Your task to perform on an android device: Search for amazon basics triple a on walmart.com, select the first entry, add it to the cart, then select checkout. Image 0: 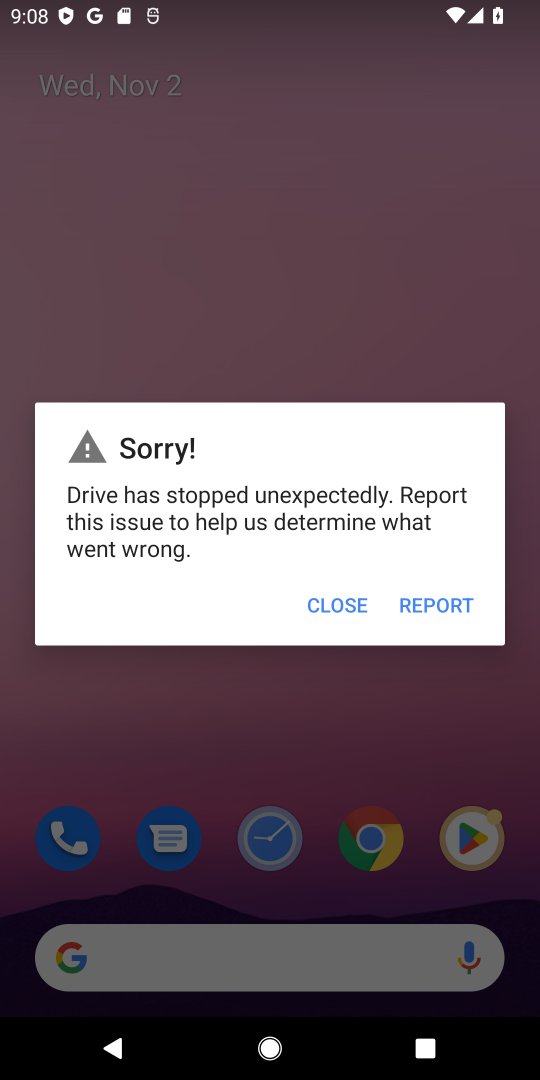
Step 0: click (336, 607)
Your task to perform on an android device: Search for amazon basics triple a on walmart.com, select the first entry, add it to the cart, then select checkout. Image 1: 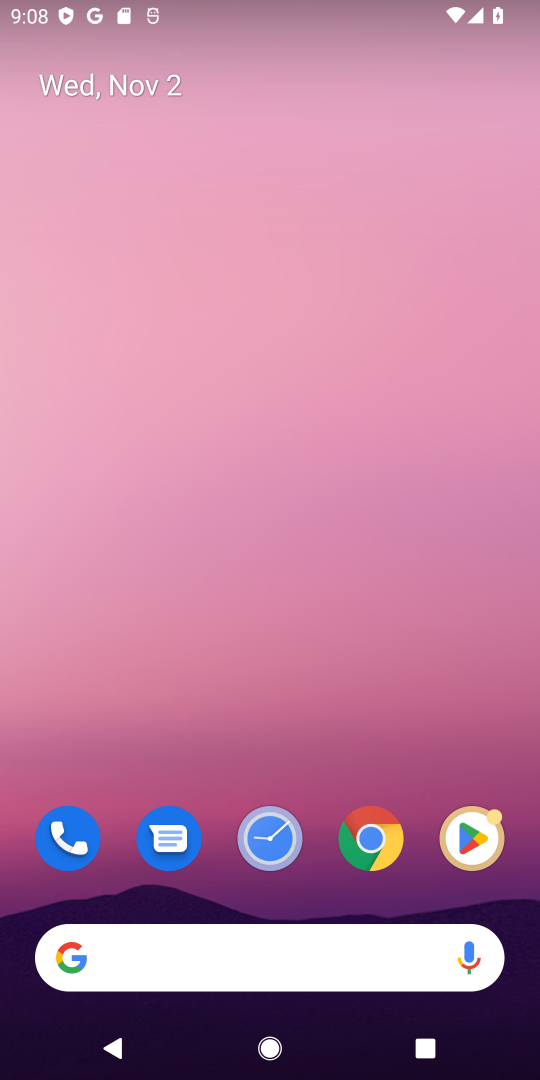
Step 1: click (368, 837)
Your task to perform on an android device: Search for amazon basics triple a on walmart.com, select the first entry, add it to the cart, then select checkout. Image 2: 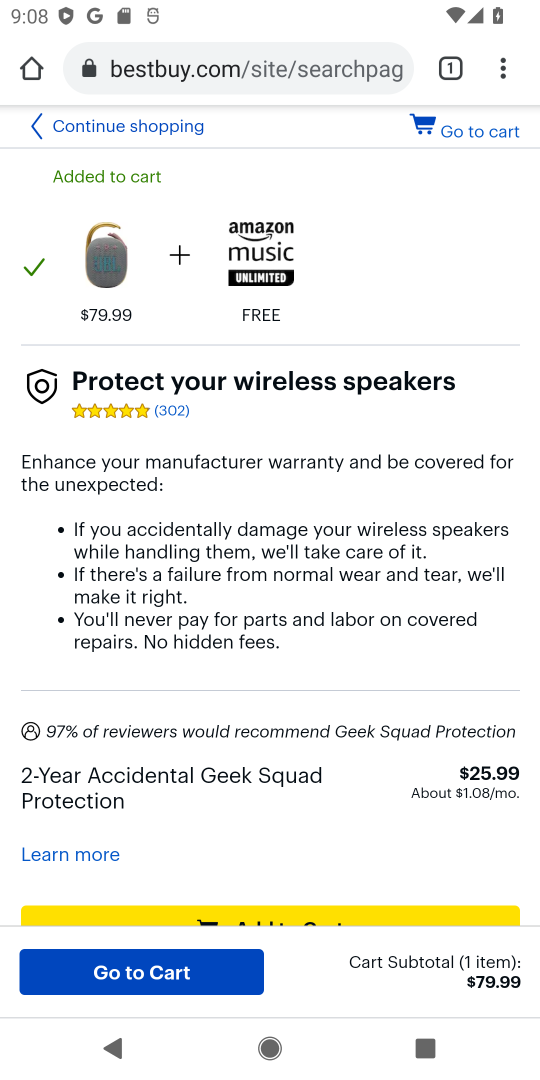
Step 2: click (452, 62)
Your task to perform on an android device: Search for amazon basics triple a on walmart.com, select the first entry, add it to the cart, then select checkout. Image 3: 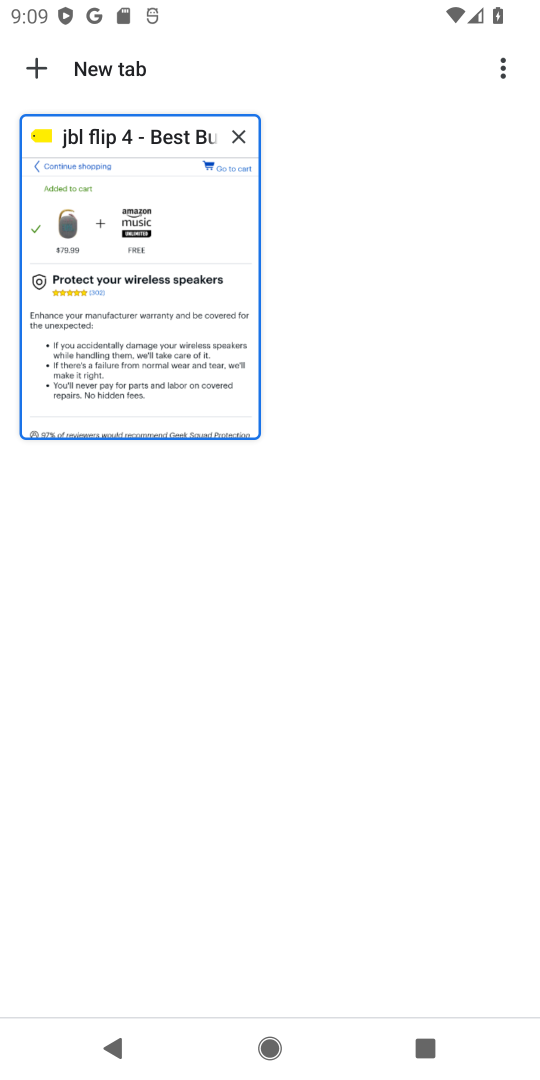
Step 3: click (27, 61)
Your task to perform on an android device: Search for amazon basics triple a on walmart.com, select the first entry, add it to the cart, then select checkout. Image 4: 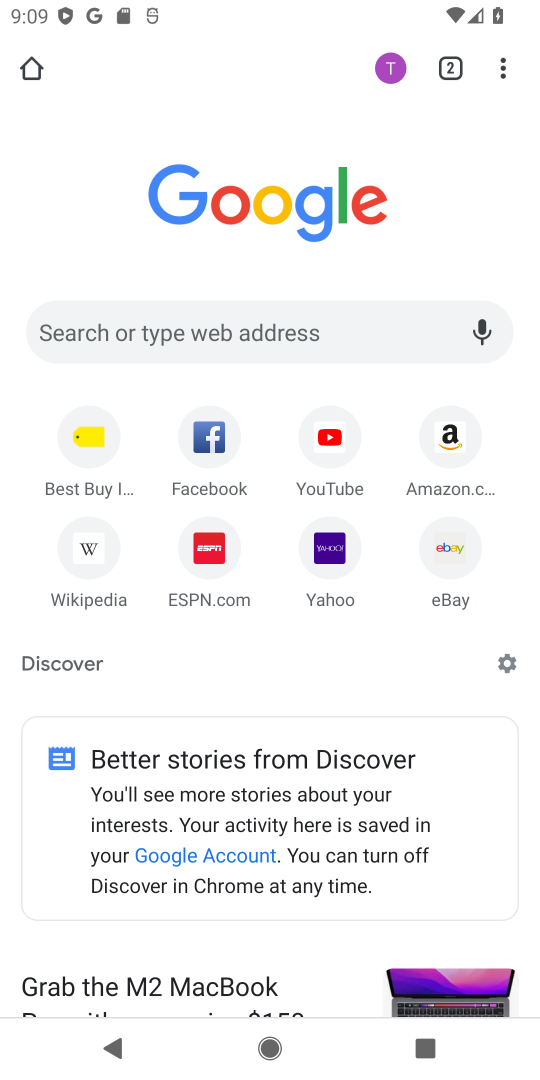
Step 4: click (334, 323)
Your task to perform on an android device: Search for amazon basics triple a on walmart.com, select the first entry, add it to the cart, then select checkout. Image 5: 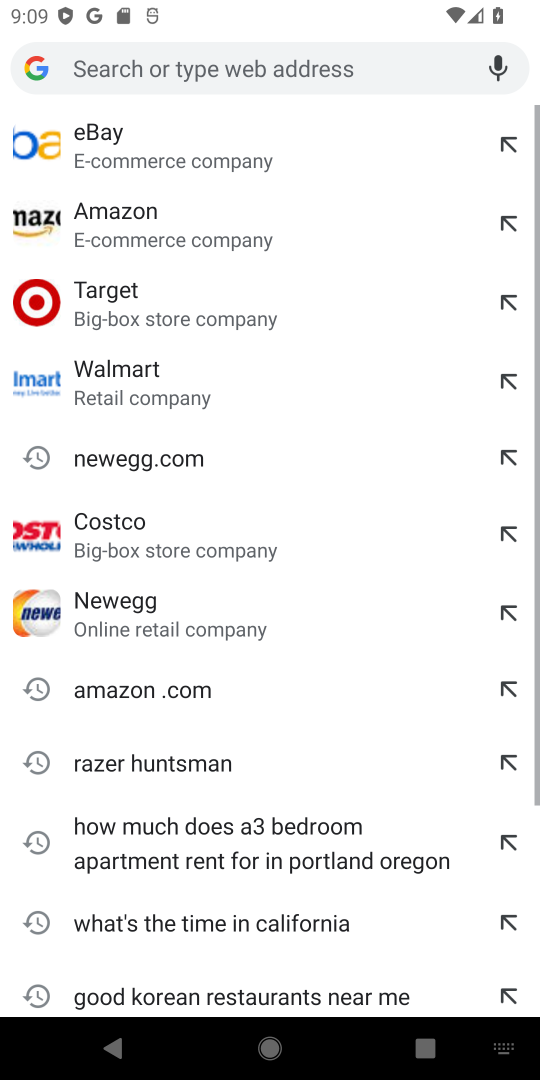
Step 5: press enter
Your task to perform on an android device: Search for amazon basics triple a on walmart.com, select the first entry, add it to the cart, then select checkout. Image 6: 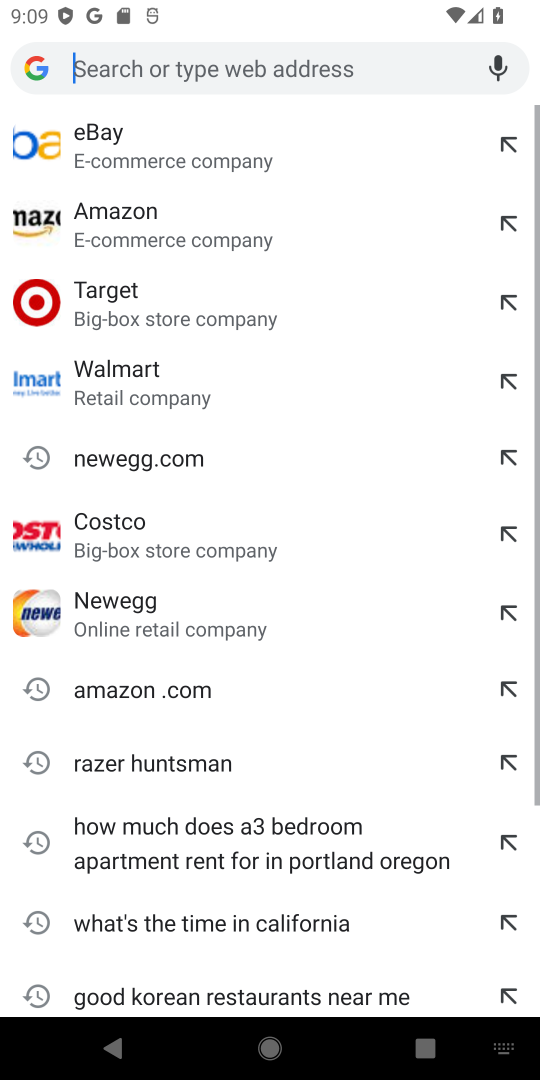
Step 6: type "amazon"
Your task to perform on an android device: Search for amazon basics triple a on walmart.com, select the first entry, add it to the cart, then select checkout. Image 7: 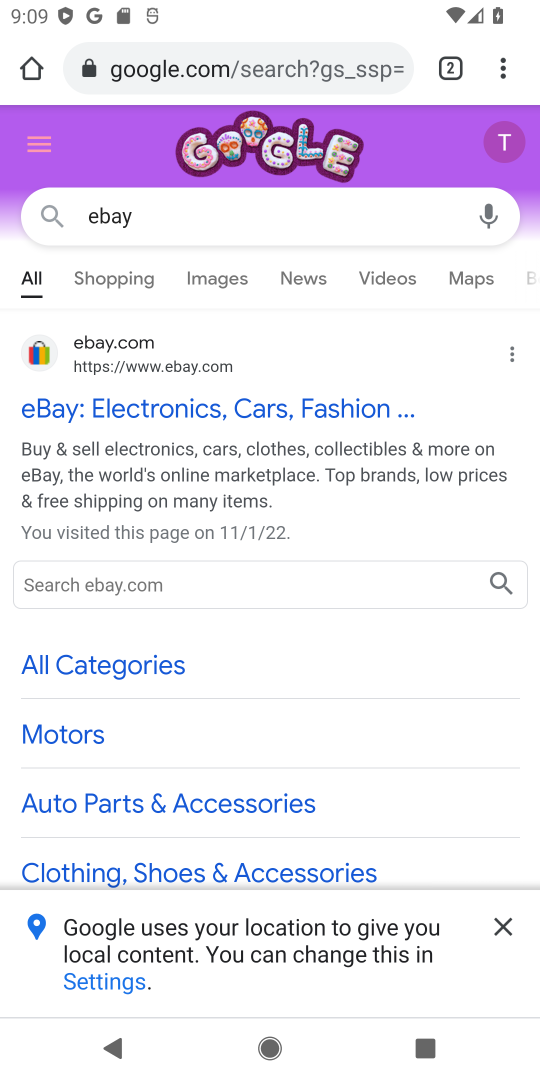
Step 7: click (228, 218)
Your task to perform on an android device: Search for amazon basics triple a on walmart.com, select the first entry, add it to the cart, then select checkout. Image 8: 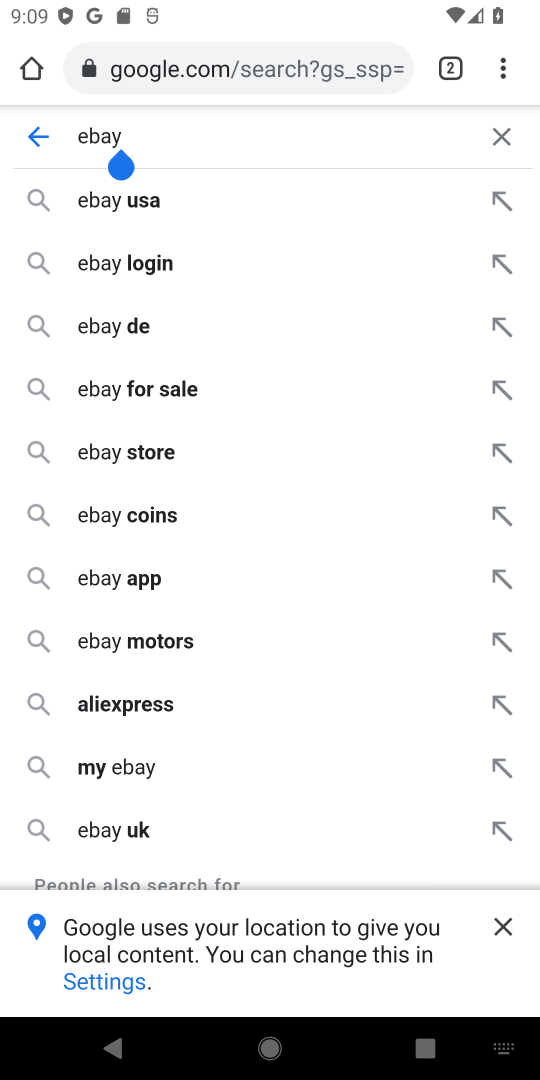
Step 8: click (122, 216)
Your task to perform on an android device: Search for amazon basics triple a on walmart.com, select the first entry, add it to the cart, then select checkout. Image 9: 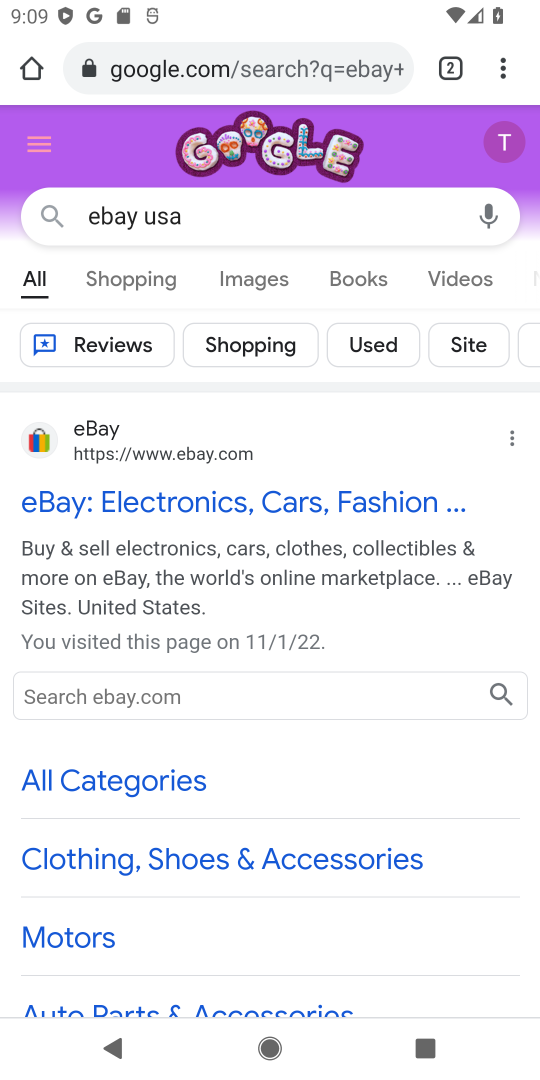
Step 9: click (348, 211)
Your task to perform on an android device: Search for amazon basics triple a on walmart.com, select the first entry, add it to the cart, then select checkout. Image 10: 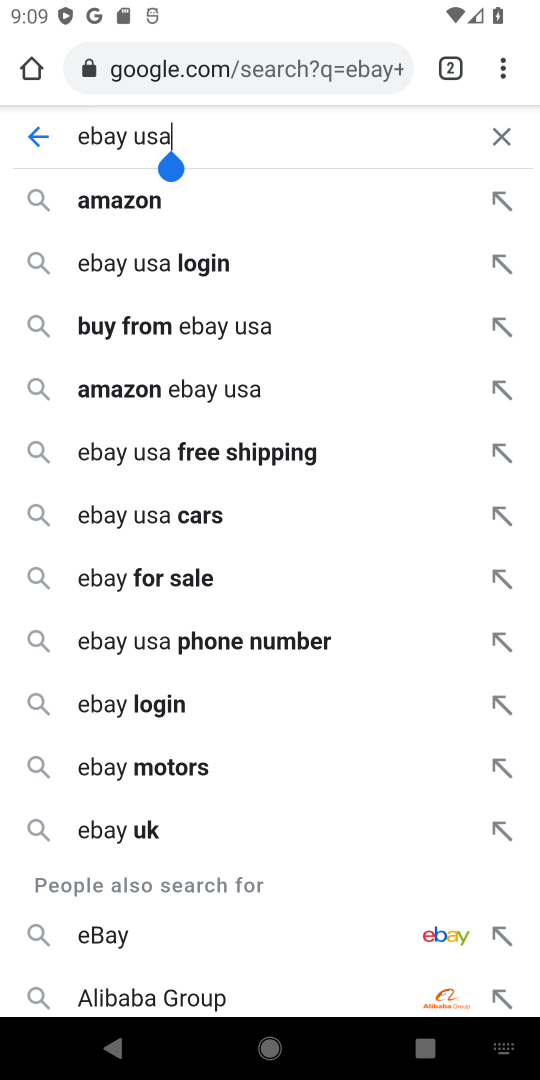
Step 10: click (501, 134)
Your task to perform on an android device: Search for amazon basics triple a on walmart.com, select the first entry, add it to the cart, then select checkout. Image 11: 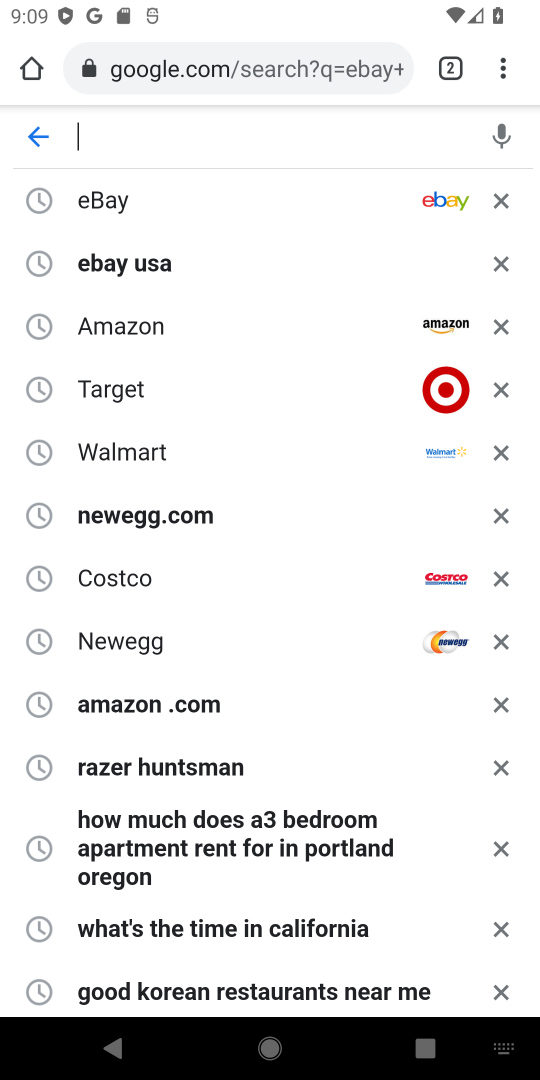
Step 11: type "wal"
Your task to perform on an android device: Search for amazon basics triple a on walmart.com, select the first entry, add it to the cart, then select checkout. Image 12: 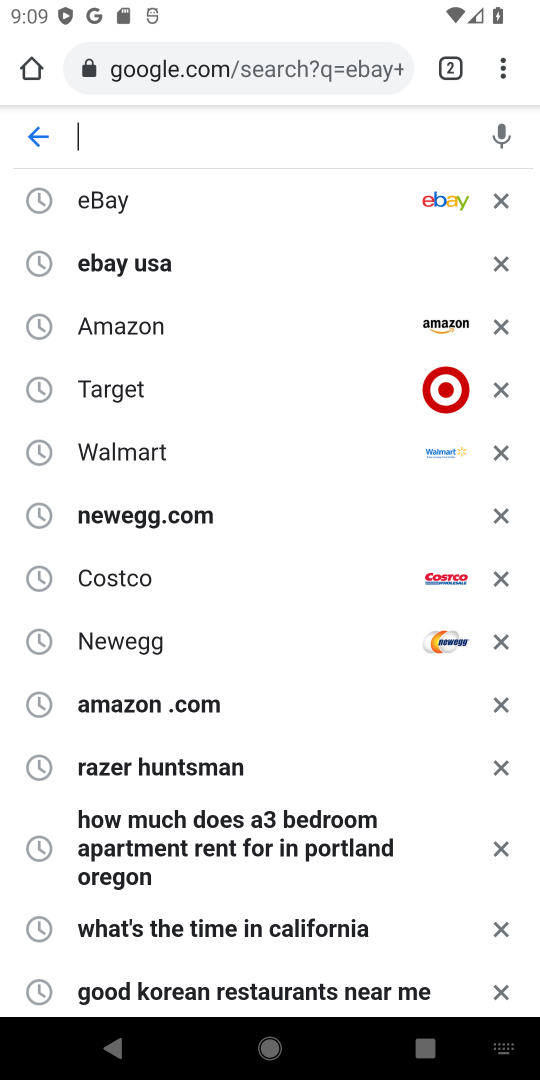
Step 12: click (130, 456)
Your task to perform on an android device: Search for amazon basics triple a on walmart.com, select the first entry, add it to the cart, then select checkout. Image 13: 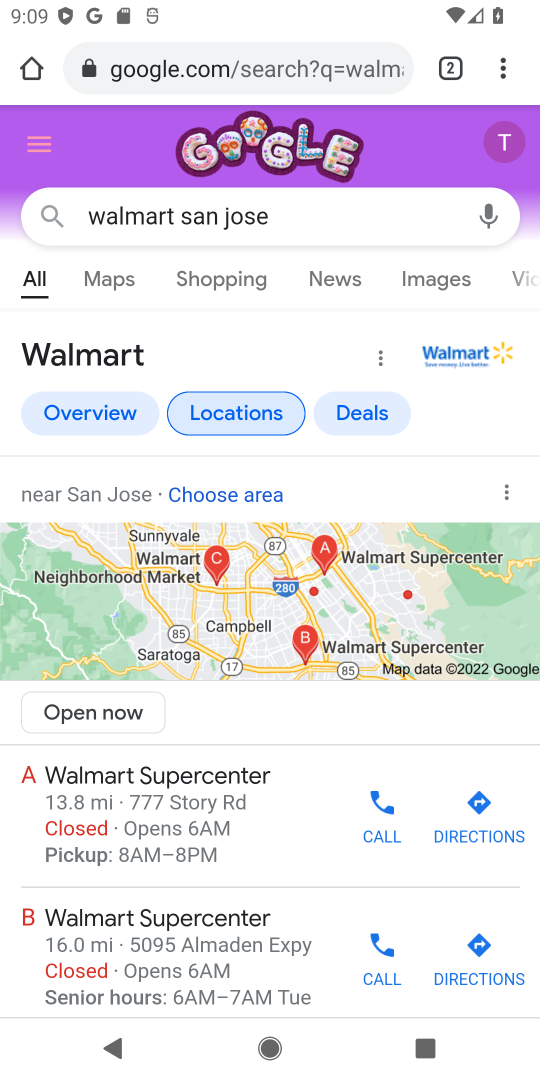
Step 13: drag from (192, 751) to (302, 319)
Your task to perform on an android device: Search for amazon basics triple a on walmart.com, select the first entry, add it to the cart, then select checkout. Image 14: 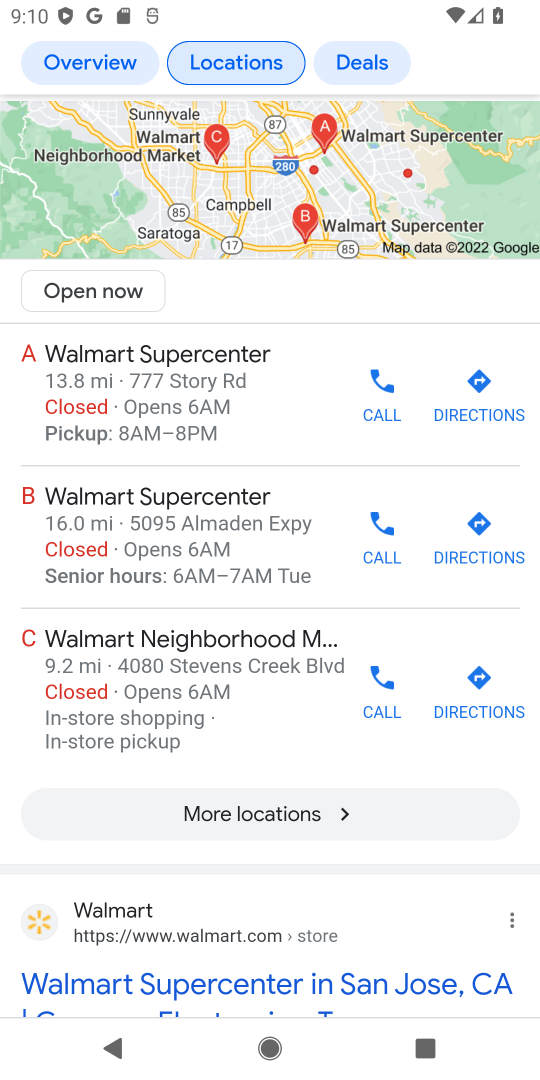
Step 14: drag from (201, 887) to (415, 173)
Your task to perform on an android device: Search for amazon basics triple a on walmart.com, select the first entry, add it to the cart, then select checkout. Image 15: 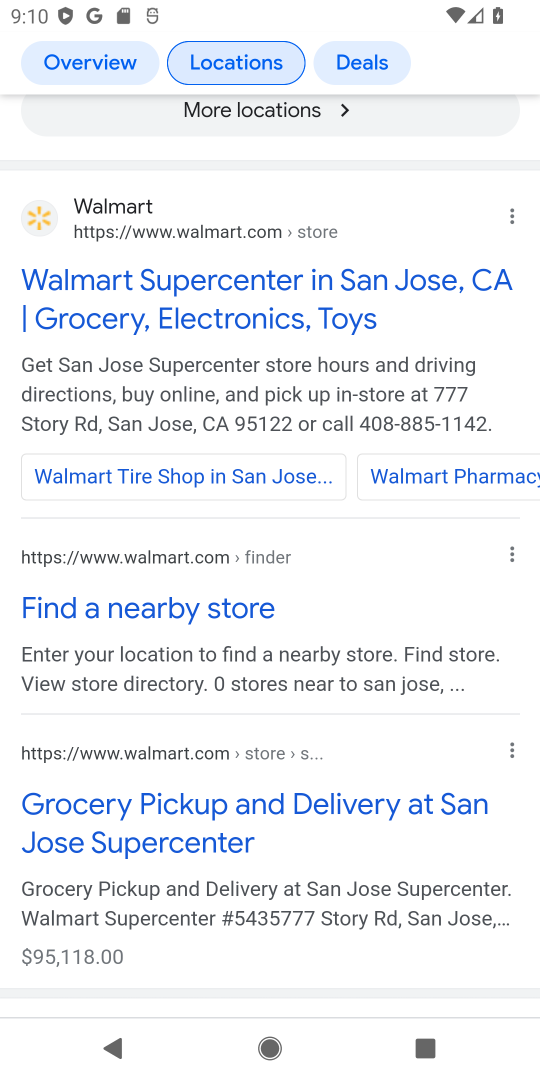
Step 15: click (230, 272)
Your task to perform on an android device: Search for amazon basics triple a on walmart.com, select the first entry, add it to the cart, then select checkout. Image 16: 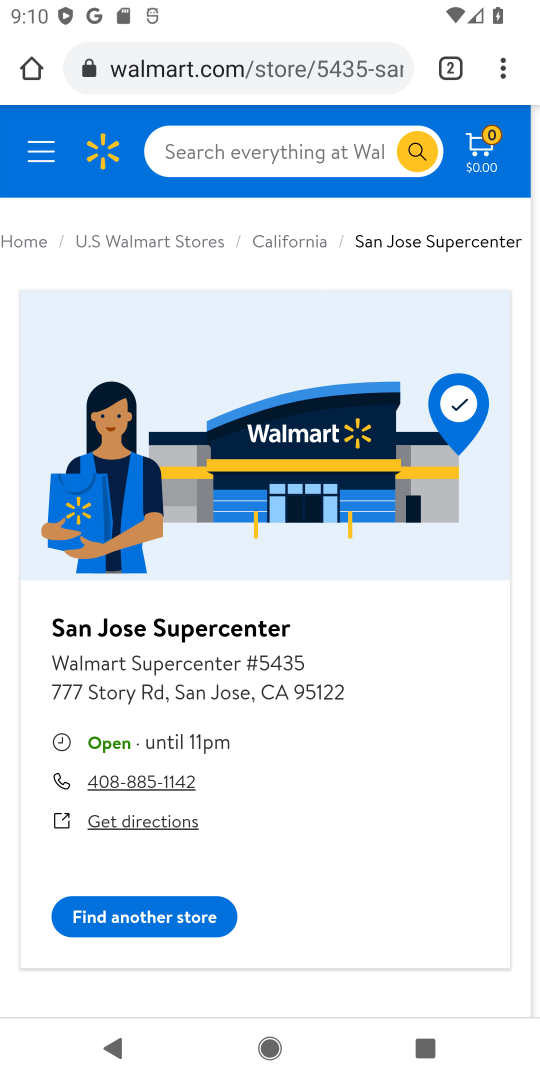
Step 16: click (254, 151)
Your task to perform on an android device: Search for amazon basics triple a on walmart.com, select the first entry, add it to the cart, then select checkout. Image 17: 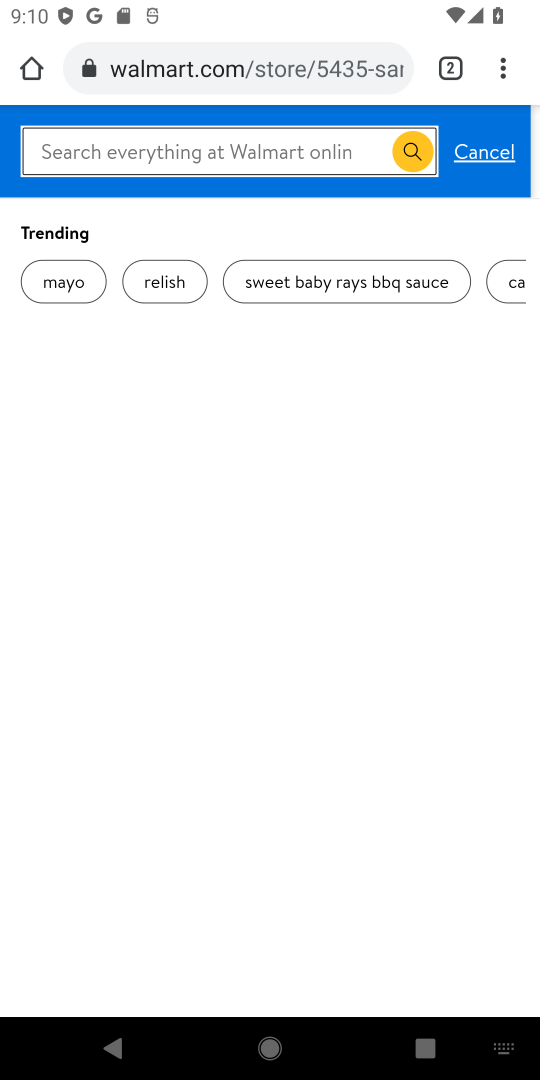
Step 17: type "amazon basics triple a"
Your task to perform on an android device: Search for amazon basics triple a on walmart.com, select the first entry, add it to the cart, then select checkout. Image 18: 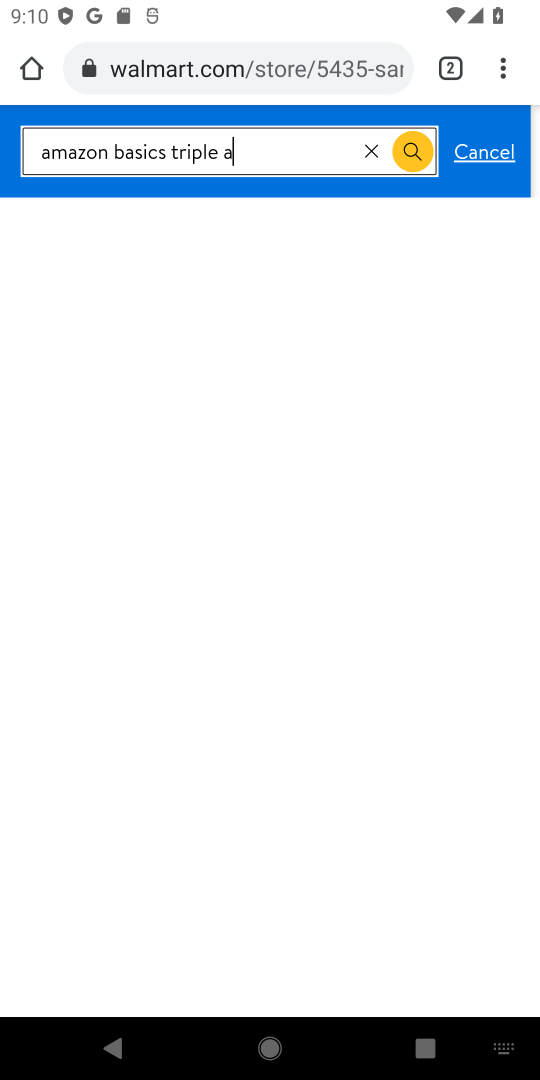
Step 18: click (419, 141)
Your task to perform on an android device: Search for amazon basics triple a on walmart.com, select the first entry, add it to the cart, then select checkout. Image 19: 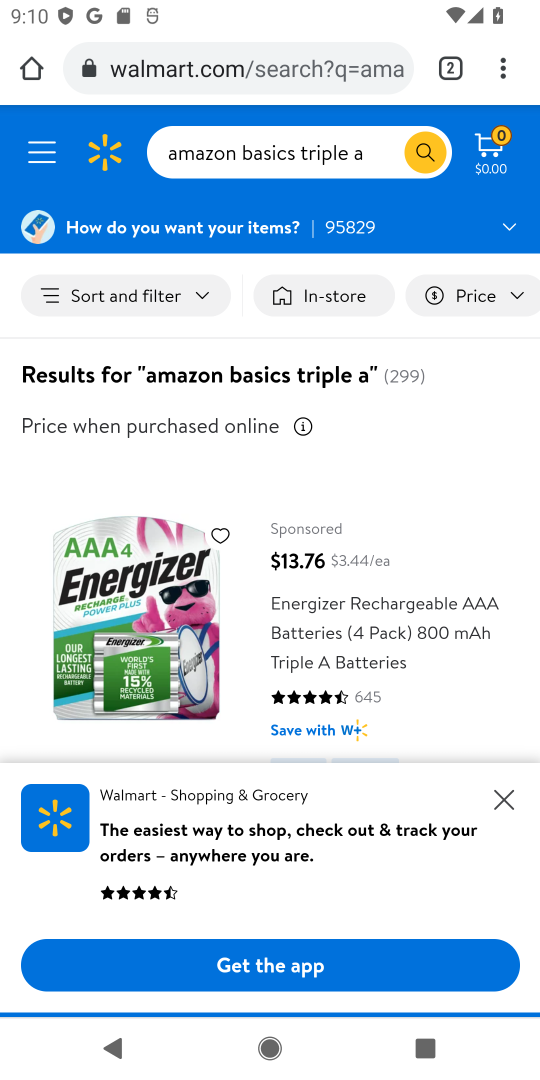
Step 19: click (501, 800)
Your task to perform on an android device: Search for amazon basics triple a on walmart.com, select the first entry, add it to the cart, then select checkout. Image 20: 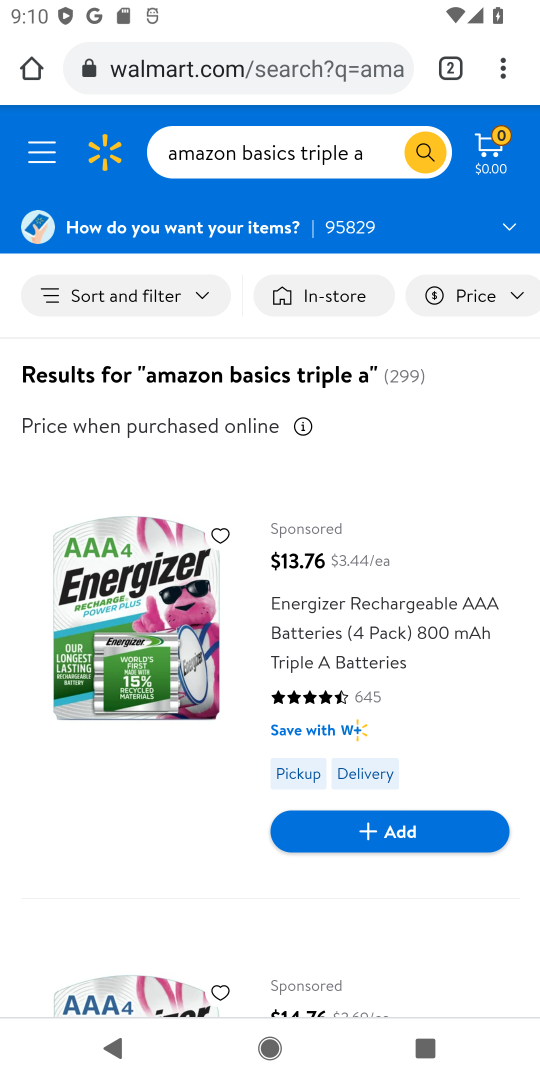
Step 20: click (441, 839)
Your task to perform on an android device: Search for amazon basics triple a on walmart.com, select the first entry, add it to the cart, then select checkout. Image 21: 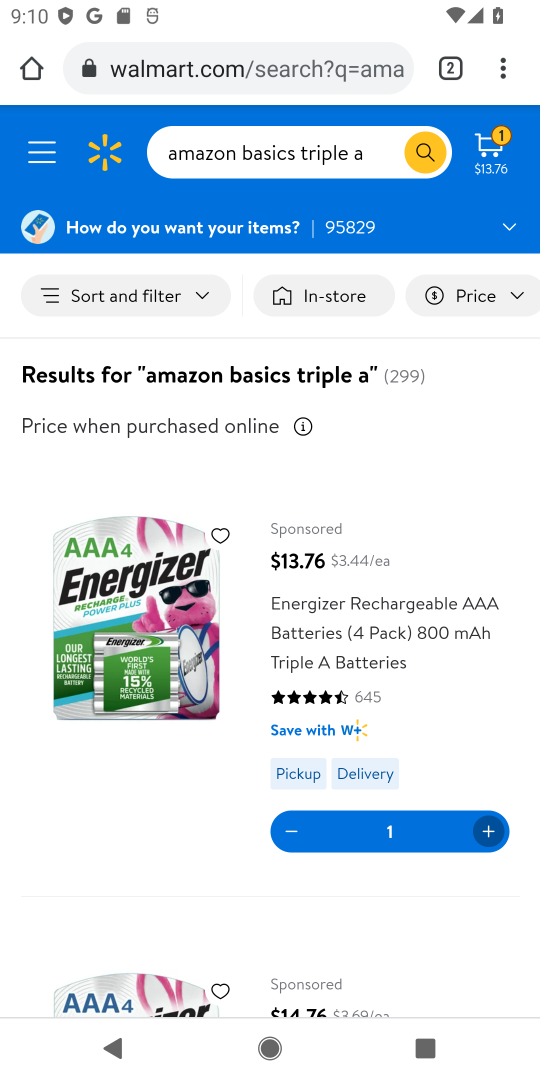
Step 21: task complete